Your task to perform on an android device: Search for Italian restaurants on Maps Image 0: 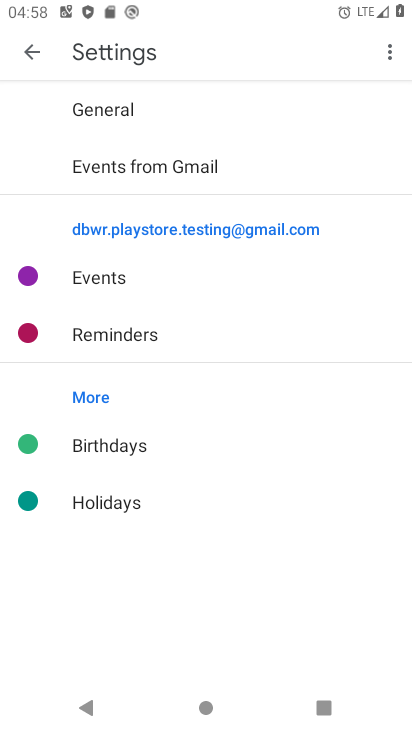
Step 0: press home button
Your task to perform on an android device: Search for Italian restaurants on Maps Image 1: 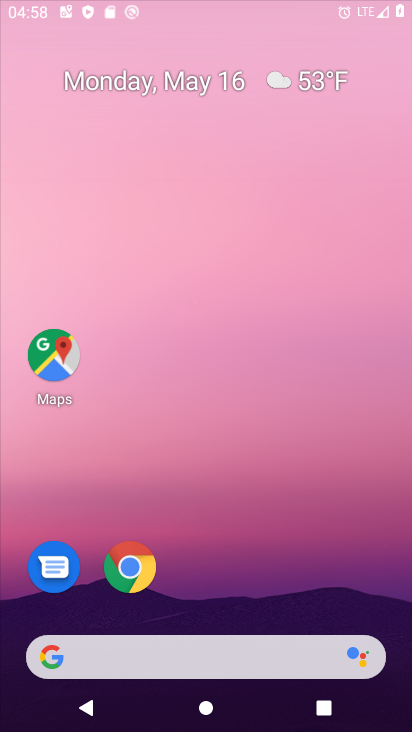
Step 1: drag from (223, 597) to (305, 13)
Your task to perform on an android device: Search for Italian restaurants on Maps Image 2: 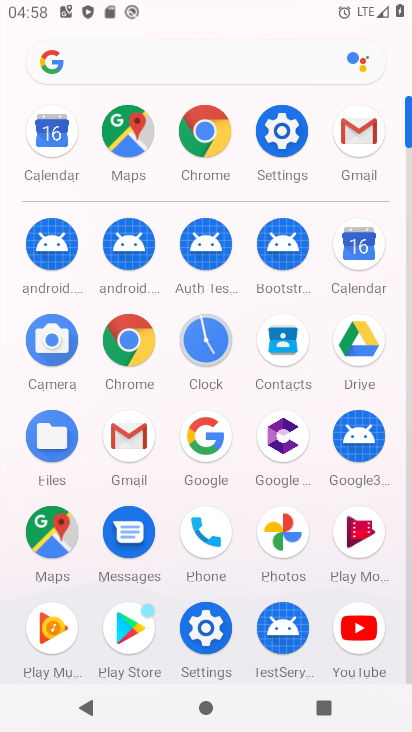
Step 2: click (35, 531)
Your task to perform on an android device: Search for Italian restaurants on Maps Image 3: 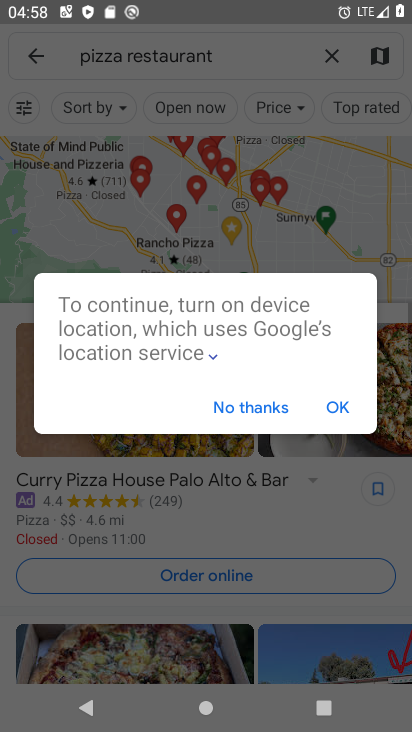
Step 3: click (340, 410)
Your task to perform on an android device: Search for Italian restaurants on Maps Image 4: 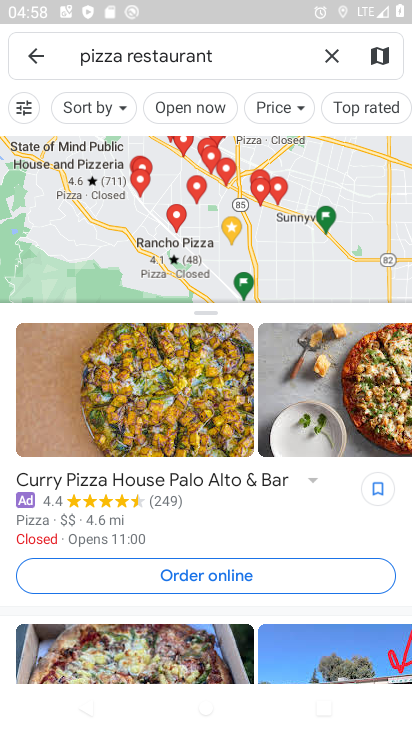
Step 4: click (327, 63)
Your task to perform on an android device: Search for Italian restaurants on Maps Image 5: 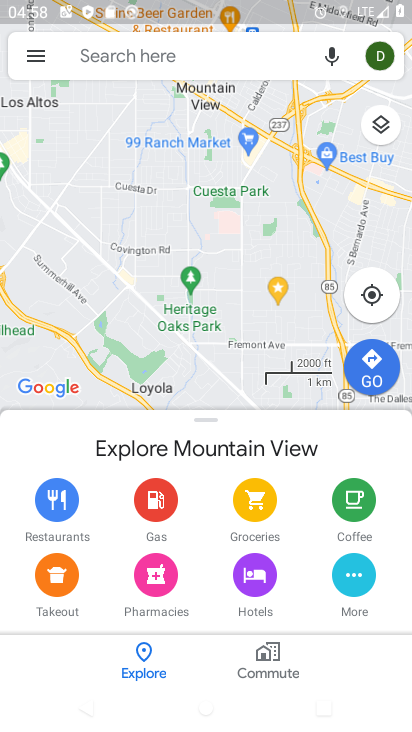
Step 5: click (192, 51)
Your task to perform on an android device: Search for Italian restaurants on Maps Image 6: 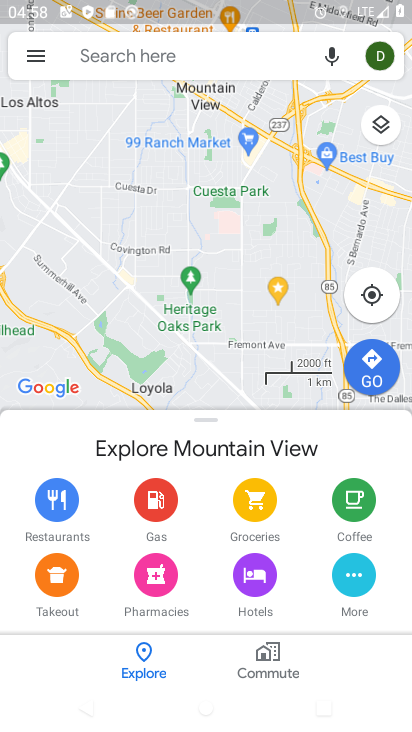
Step 6: click (192, 51)
Your task to perform on an android device: Search for Italian restaurants on Maps Image 7: 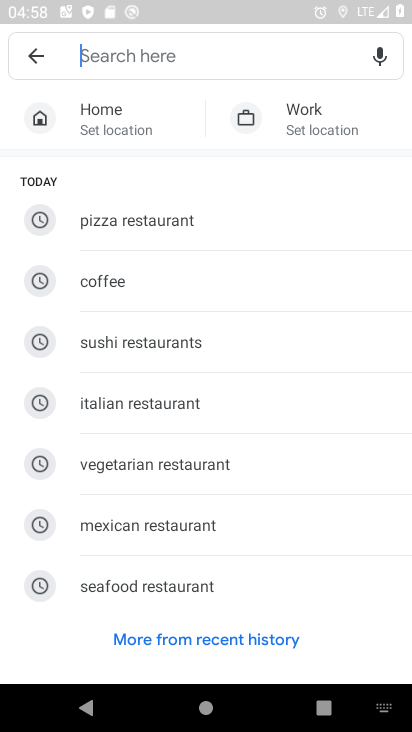
Step 7: click (144, 395)
Your task to perform on an android device: Search for Italian restaurants on Maps Image 8: 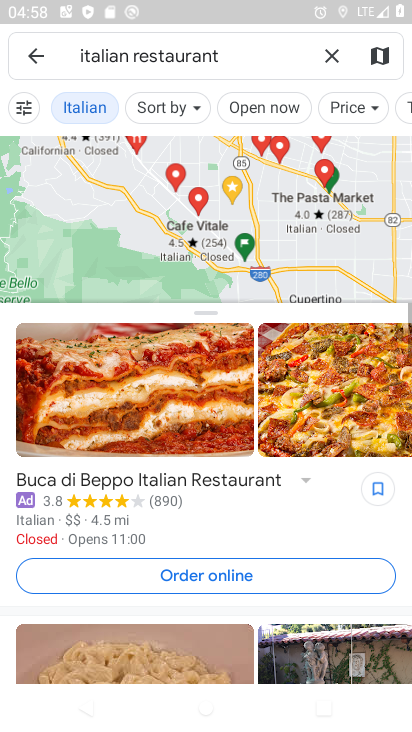
Step 8: task complete